Your task to perform on an android device: Go to wifi settings Image 0: 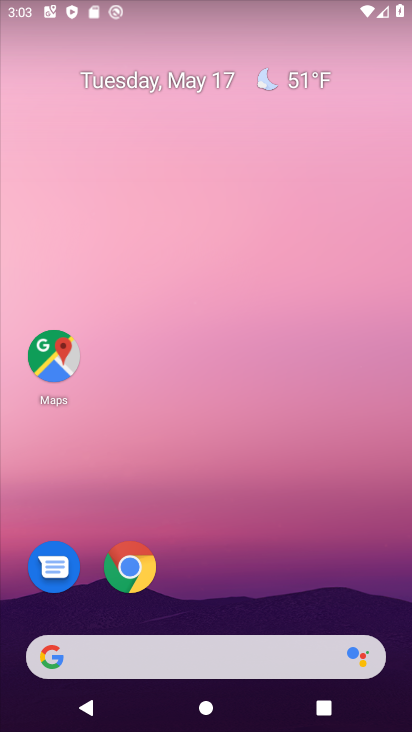
Step 0: drag from (216, 641) to (204, 179)
Your task to perform on an android device: Go to wifi settings Image 1: 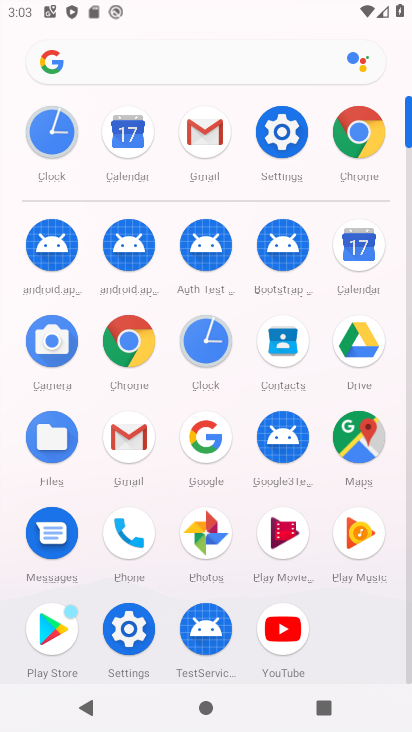
Step 1: click (284, 133)
Your task to perform on an android device: Go to wifi settings Image 2: 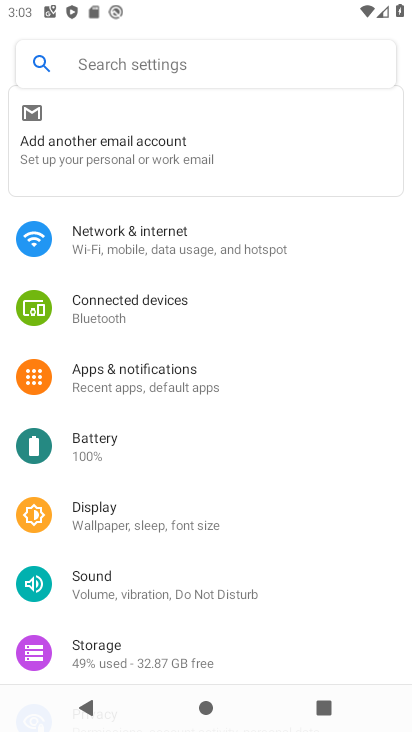
Step 2: click (125, 239)
Your task to perform on an android device: Go to wifi settings Image 3: 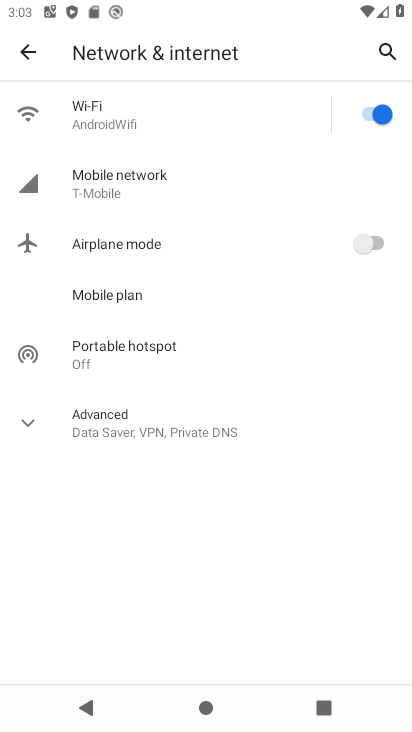
Step 3: click (124, 134)
Your task to perform on an android device: Go to wifi settings Image 4: 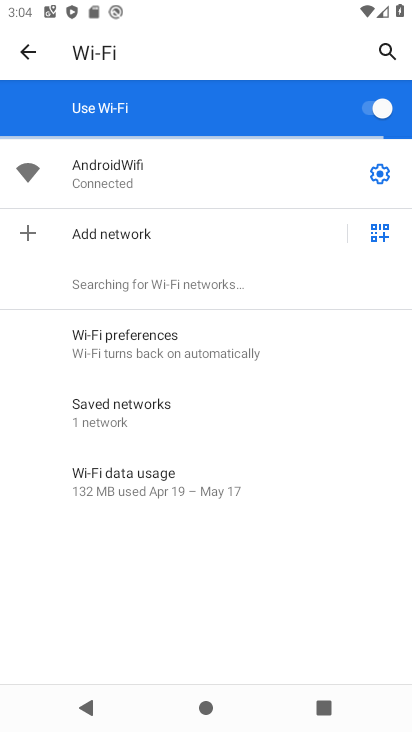
Step 4: task complete